Your task to perform on an android device: Open Google Maps and go to "Timeline" Image 0: 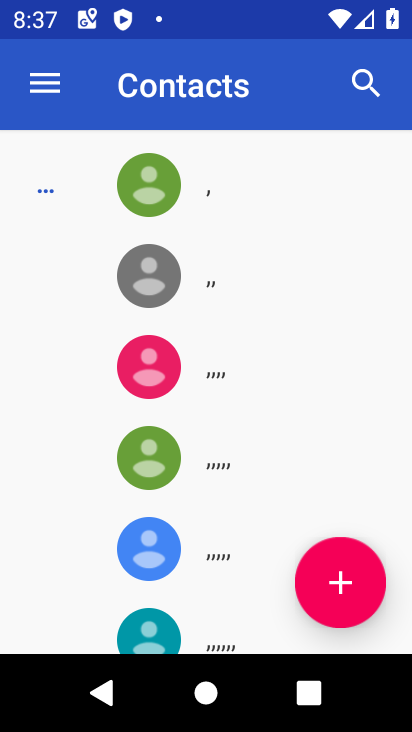
Step 0: press home button
Your task to perform on an android device: Open Google Maps and go to "Timeline" Image 1: 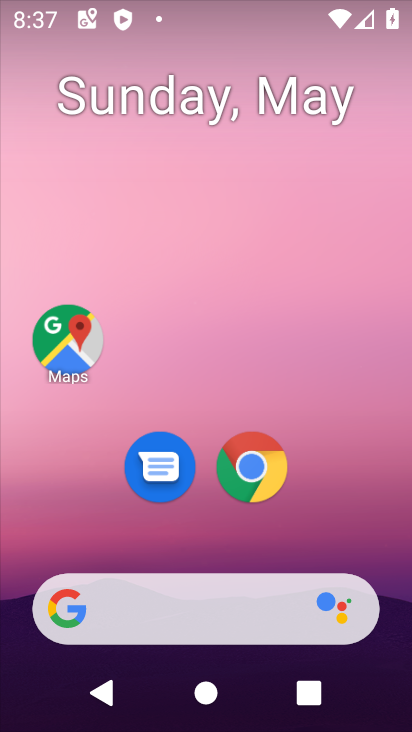
Step 1: click (64, 371)
Your task to perform on an android device: Open Google Maps and go to "Timeline" Image 2: 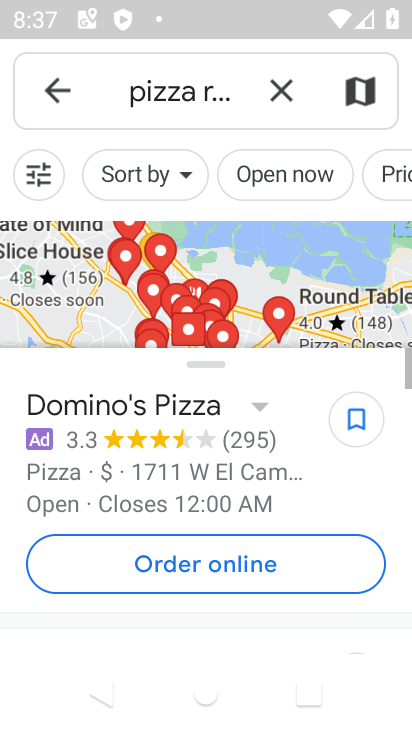
Step 2: click (52, 78)
Your task to perform on an android device: Open Google Maps and go to "Timeline" Image 3: 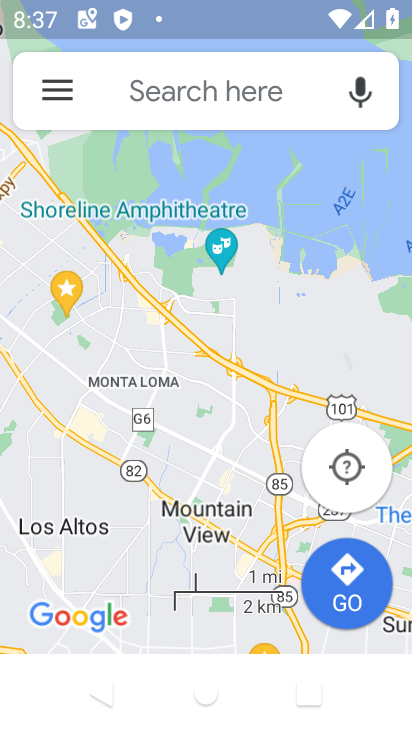
Step 3: click (52, 78)
Your task to perform on an android device: Open Google Maps and go to "Timeline" Image 4: 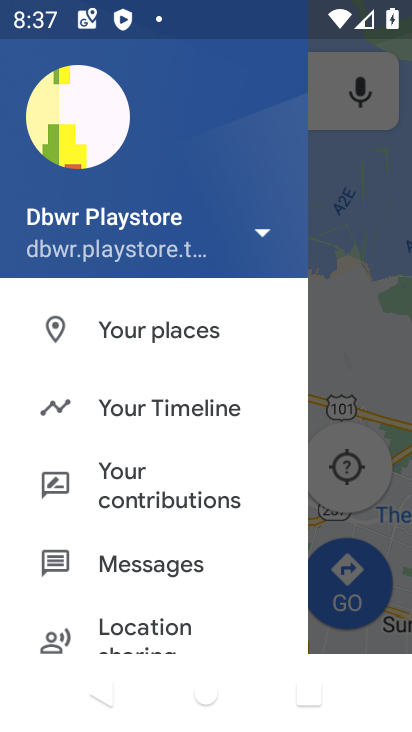
Step 4: click (89, 401)
Your task to perform on an android device: Open Google Maps and go to "Timeline" Image 5: 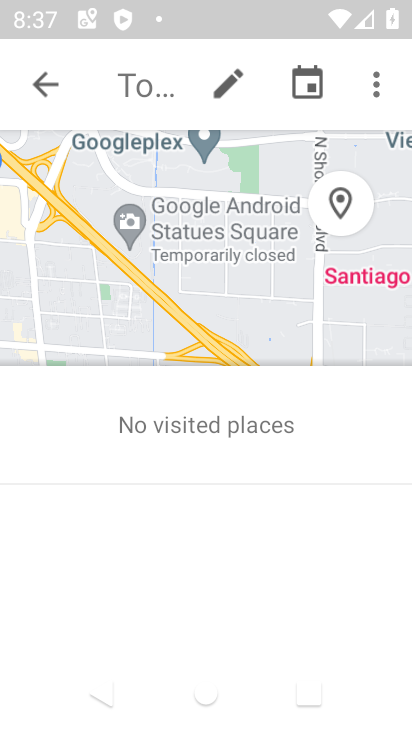
Step 5: task complete